Your task to perform on an android device: check android version Image 0: 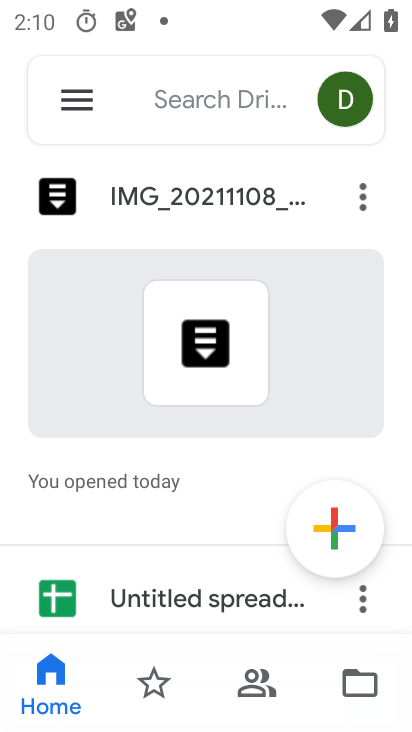
Step 0: press home button
Your task to perform on an android device: check android version Image 1: 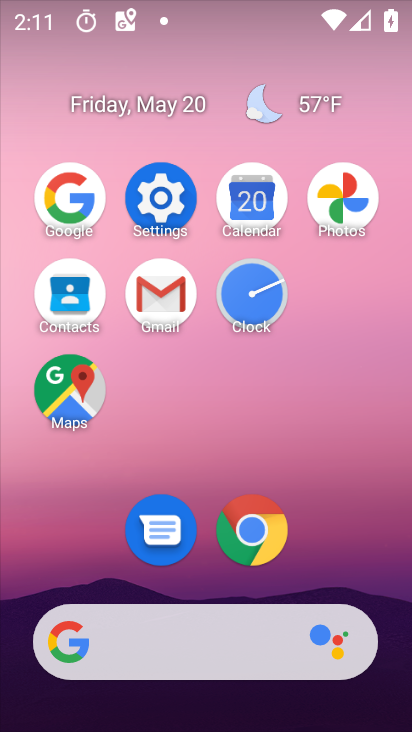
Step 1: click (158, 187)
Your task to perform on an android device: check android version Image 2: 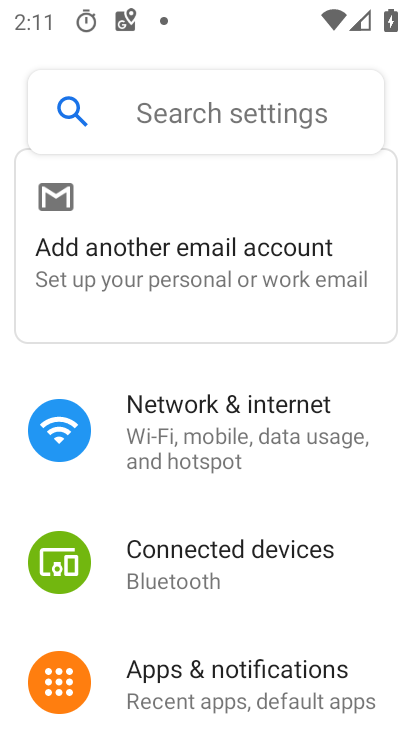
Step 2: drag from (197, 618) to (236, 87)
Your task to perform on an android device: check android version Image 3: 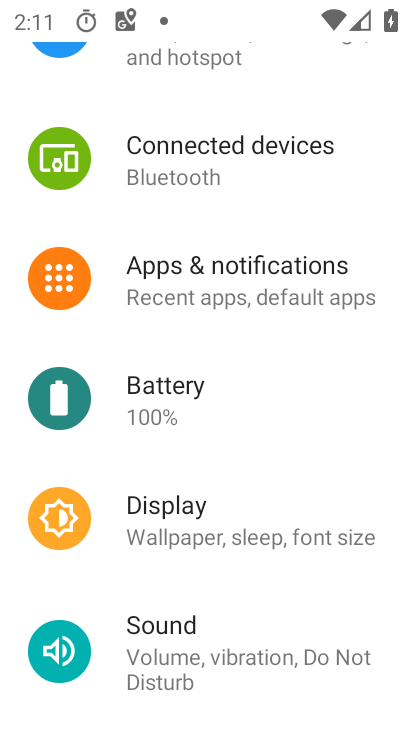
Step 3: drag from (319, 577) to (240, 105)
Your task to perform on an android device: check android version Image 4: 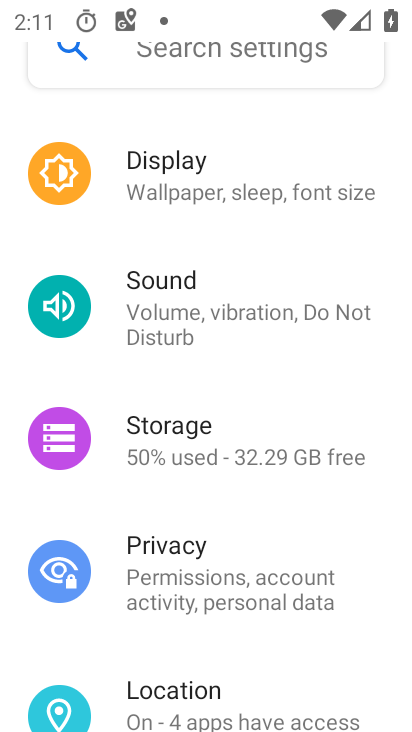
Step 4: drag from (220, 578) to (275, 43)
Your task to perform on an android device: check android version Image 5: 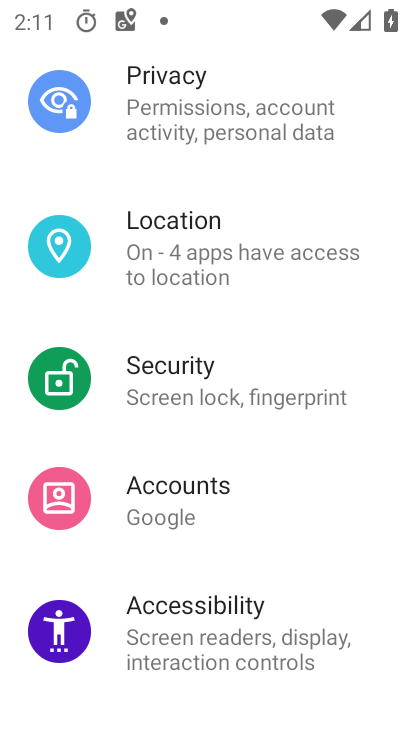
Step 5: drag from (197, 628) to (259, 187)
Your task to perform on an android device: check android version Image 6: 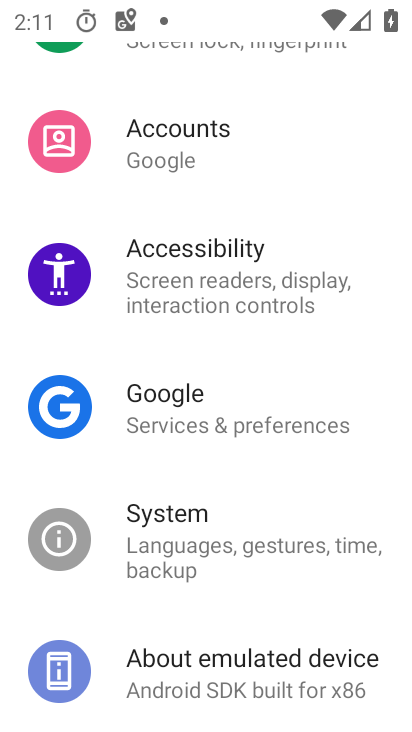
Step 6: drag from (229, 634) to (257, 247)
Your task to perform on an android device: check android version Image 7: 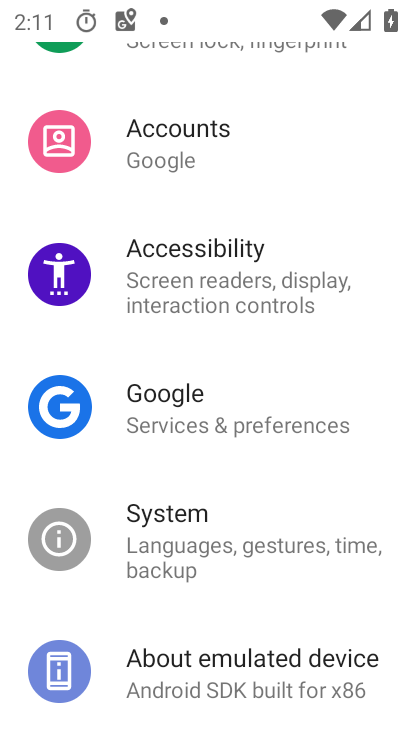
Step 7: click (221, 669)
Your task to perform on an android device: check android version Image 8: 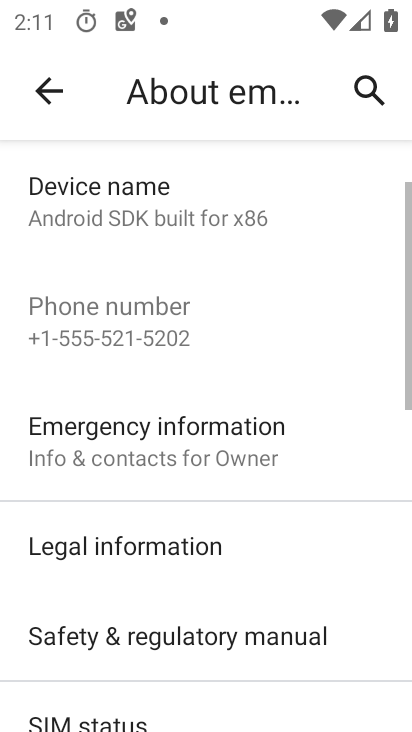
Step 8: task complete